Your task to perform on an android device: Open calendar and show me the third week of next month Image 0: 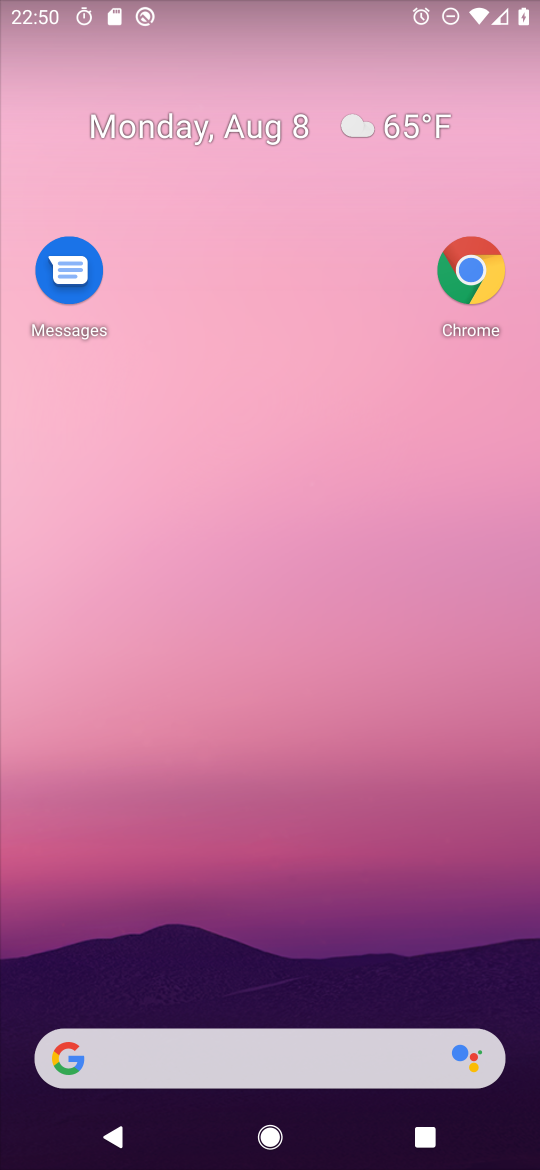
Step 0: drag from (309, 940) to (308, 342)
Your task to perform on an android device: Open calendar and show me the third week of next month Image 1: 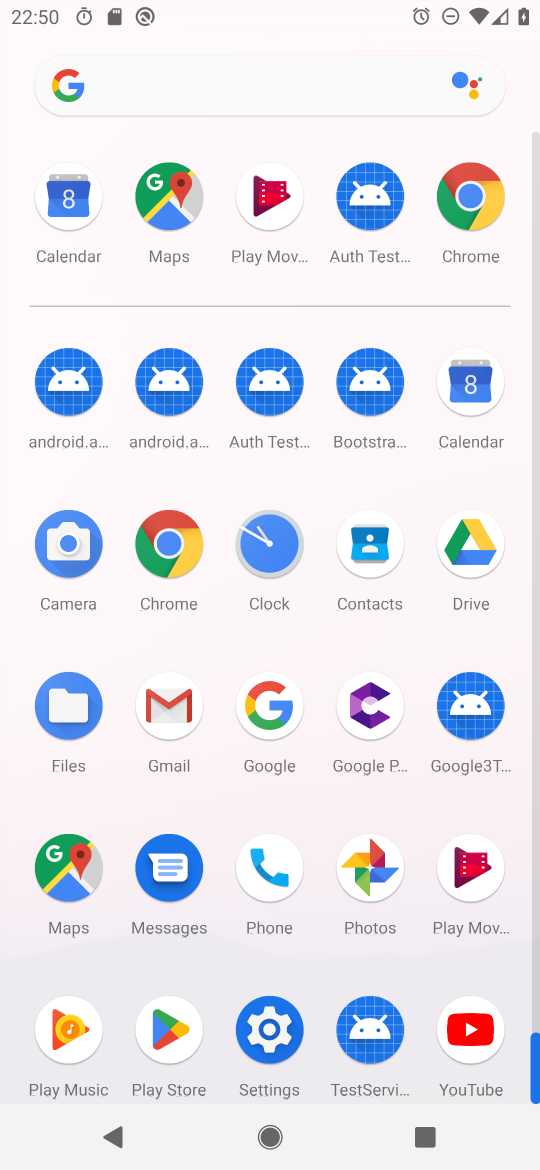
Step 1: click (477, 370)
Your task to perform on an android device: Open calendar and show me the third week of next month Image 2: 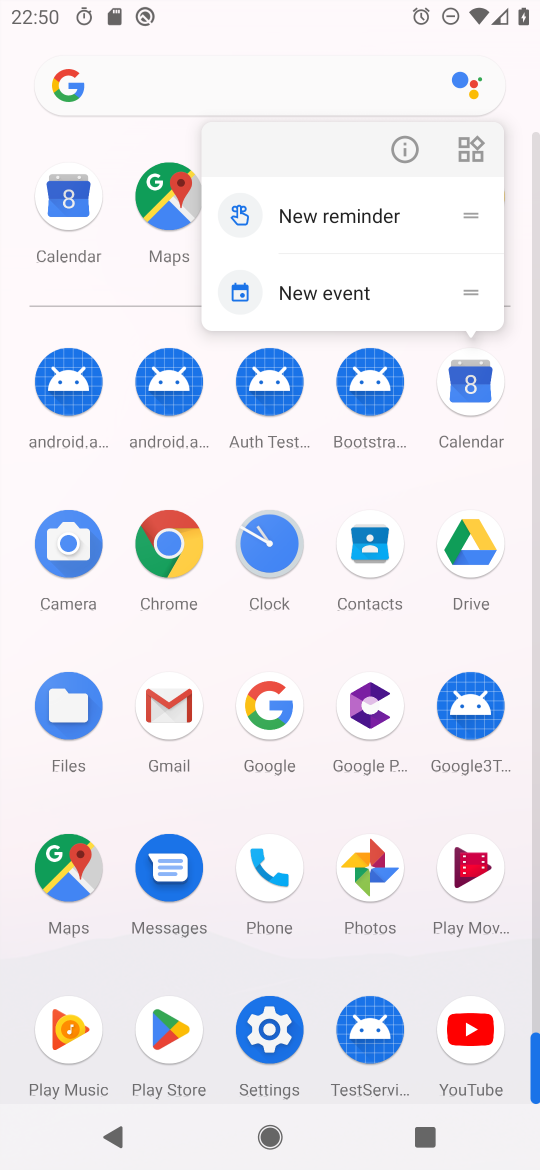
Step 2: click (402, 137)
Your task to perform on an android device: Open calendar and show me the third week of next month Image 3: 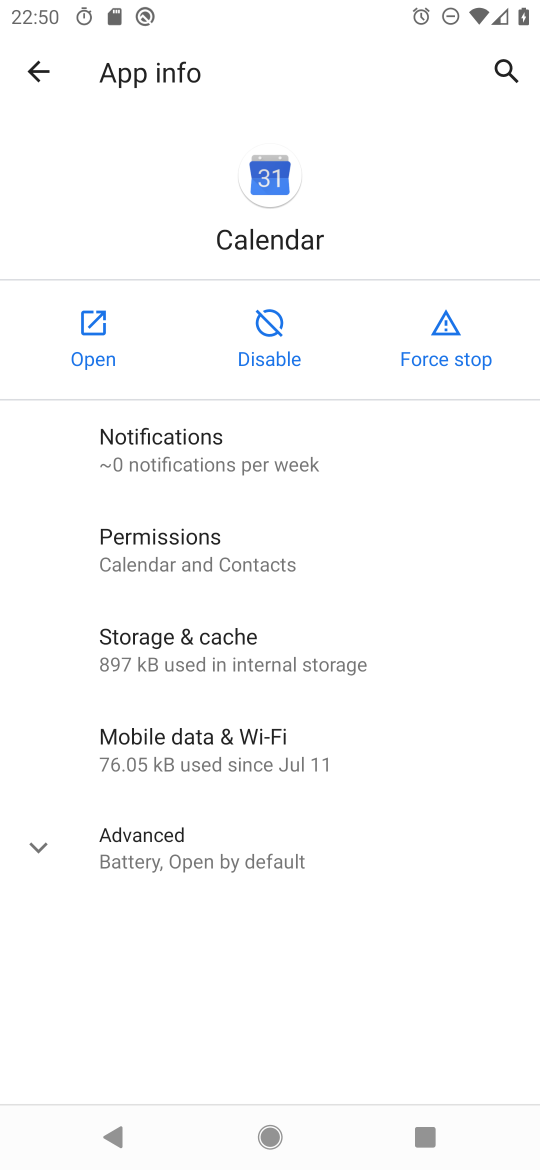
Step 3: click (82, 309)
Your task to perform on an android device: Open calendar and show me the third week of next month Image 4: 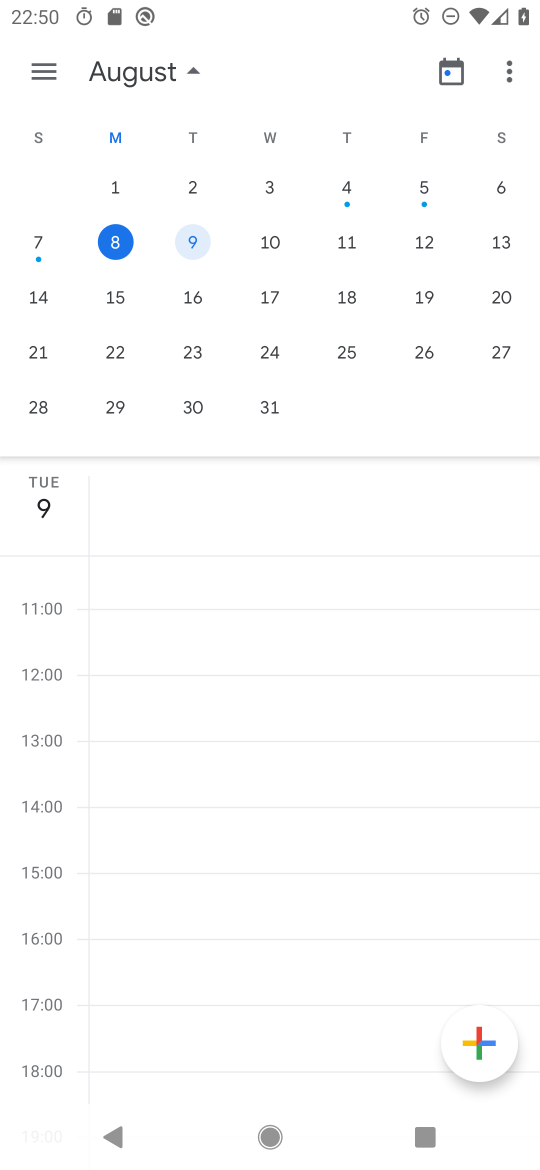
Step 4: drag from (468, 246) to (3, 287)
Your task to perform on an android device: Open calendar and show me the third week of next month Image 5: 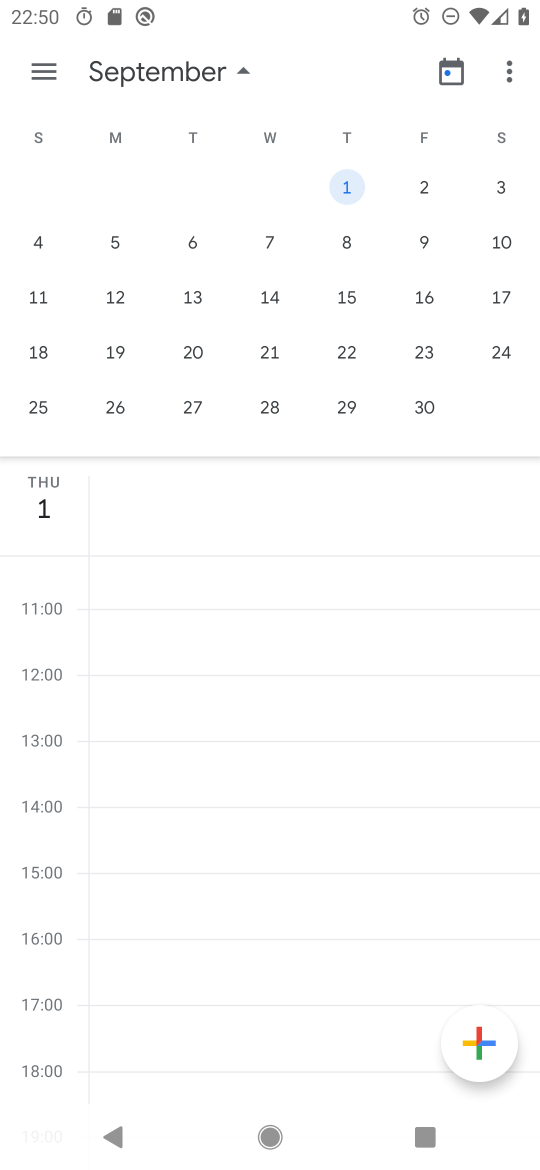
Step 5: click (358, 304)
Your task to perform on an android device: Open calendar and show me the third week of next month Image 6: 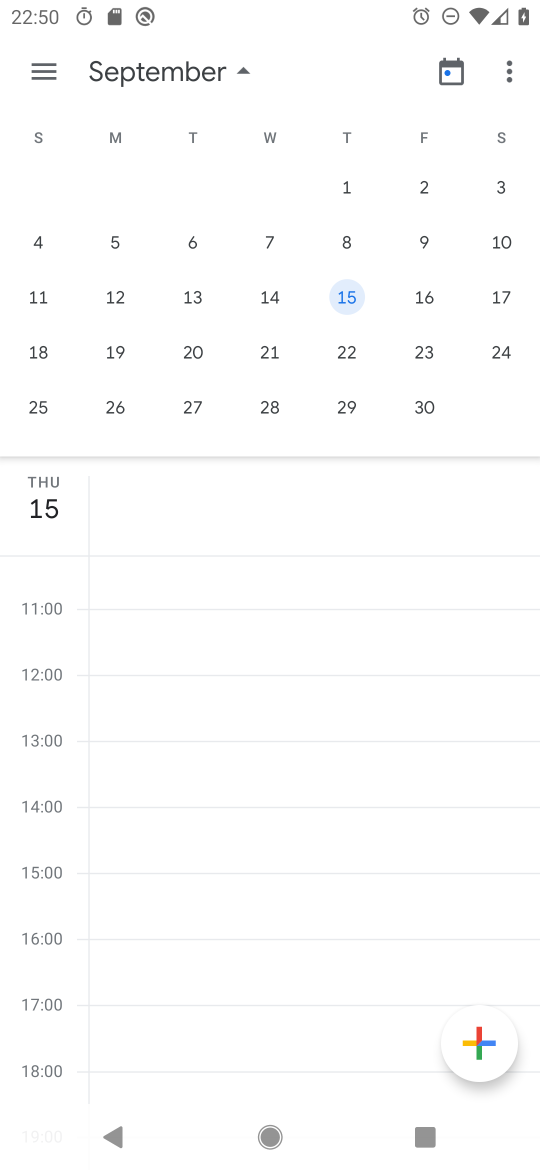
Step 6: click (397, 292)
Your task to perform on an android device: Open calendar and show me the third week of next month Image 7: 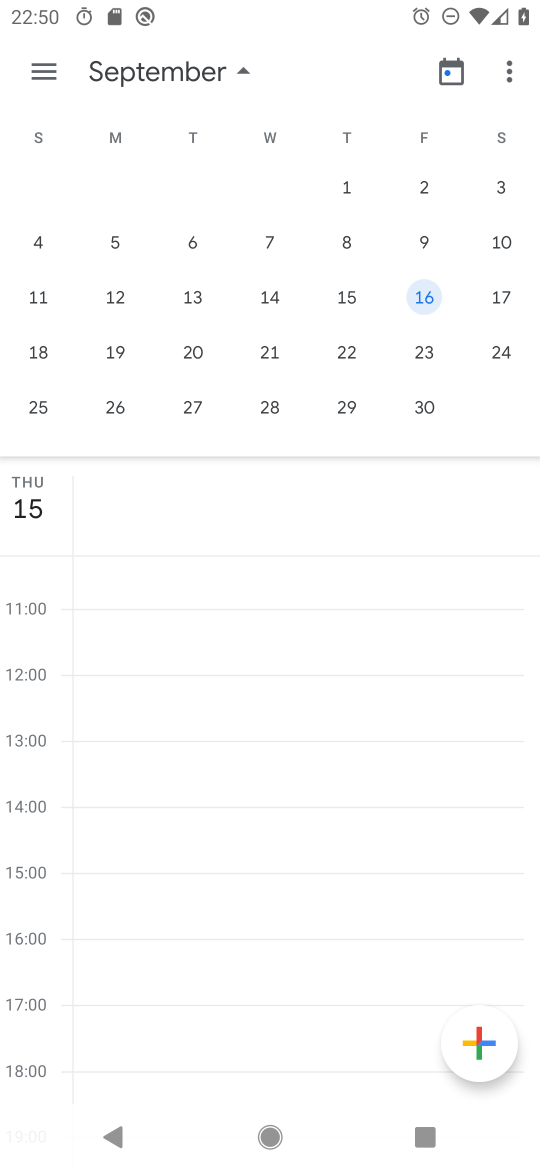
Step 7: click (412, 292)
Your task to perform on an android device: Open calendar and show me the third week of next month Image 8: 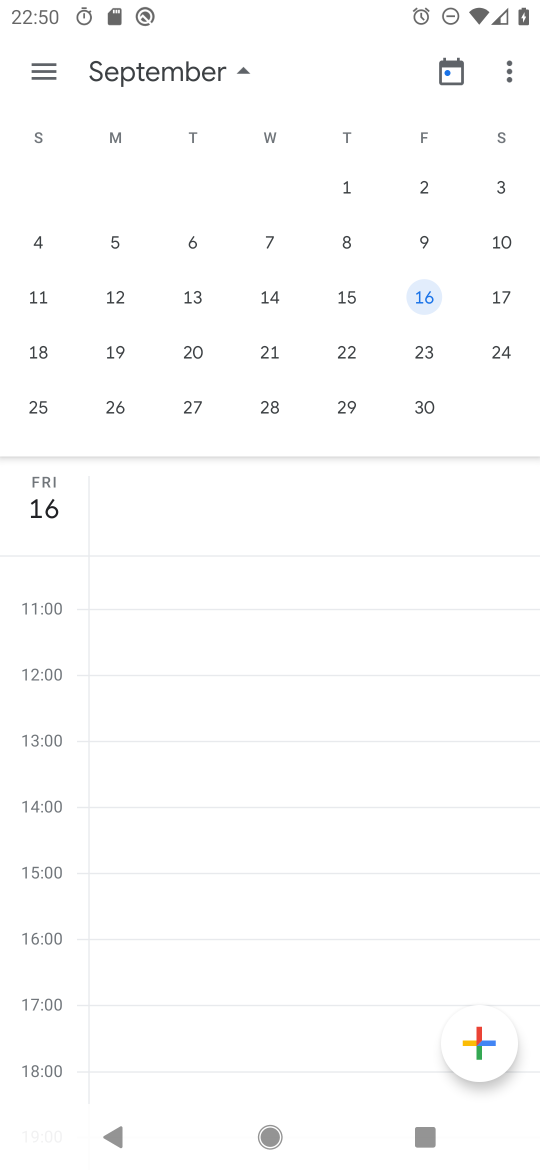
Step 8: task complete